Your task to perform on an android device: turn on javascript in the chrome app Image 0: 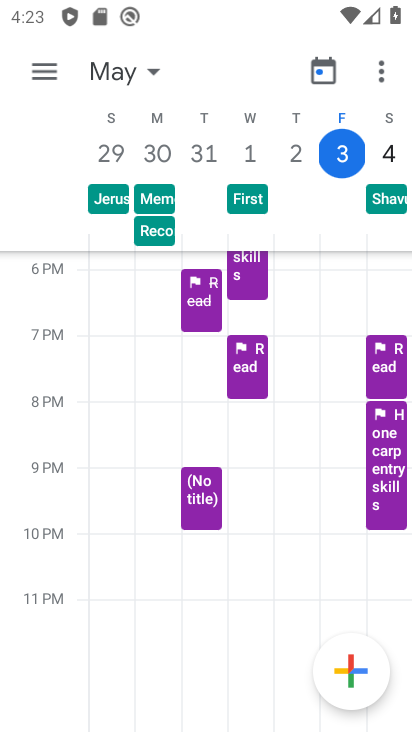
Step 0: press back button
Your task to perform on an android device: turn on javascript in the chrome app Image 1: 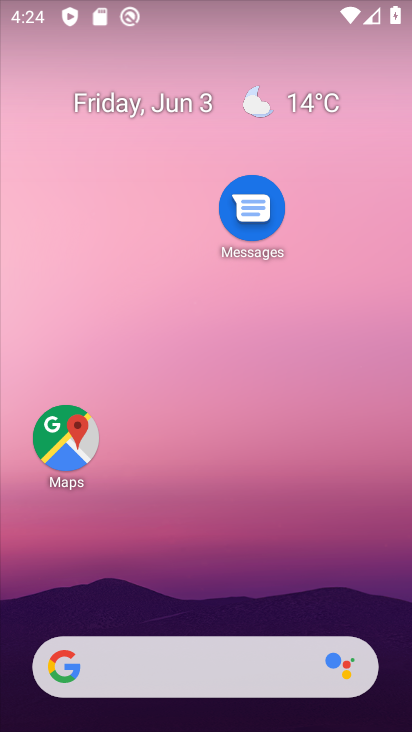
Step 1: drag from (219, 592) to (237, 156)
Your task to perform on an android device: turn on javascript in the chrome app Image 2: 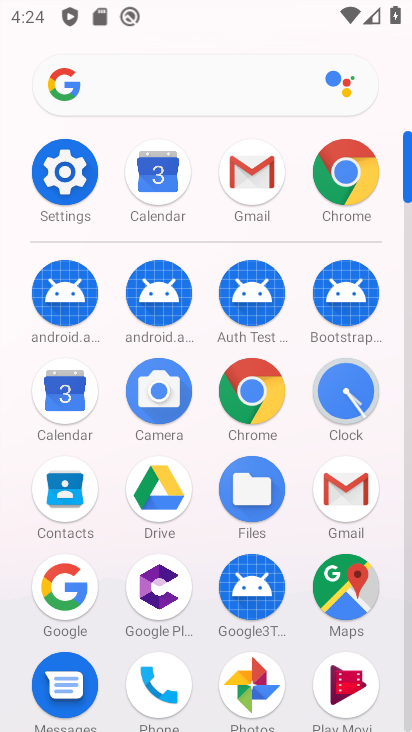
Step 2: click (336, 170)
Your task to perform on an android device: turn on javascript in the chrome app Image 3: 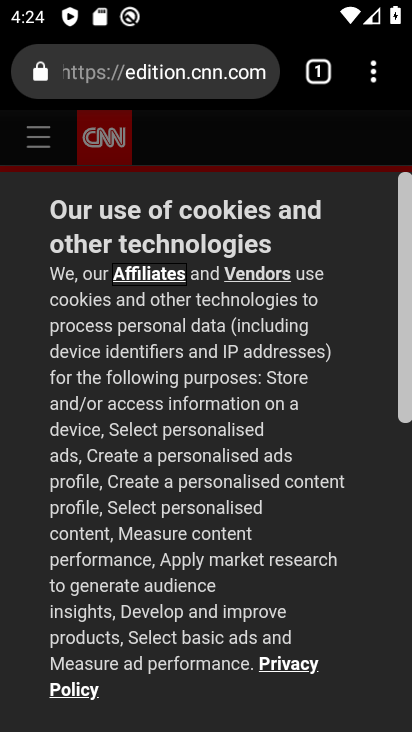
Step 3: click (377, 79)
Your task to perform on an android device: turn on javascript in the chrome app Image 4: 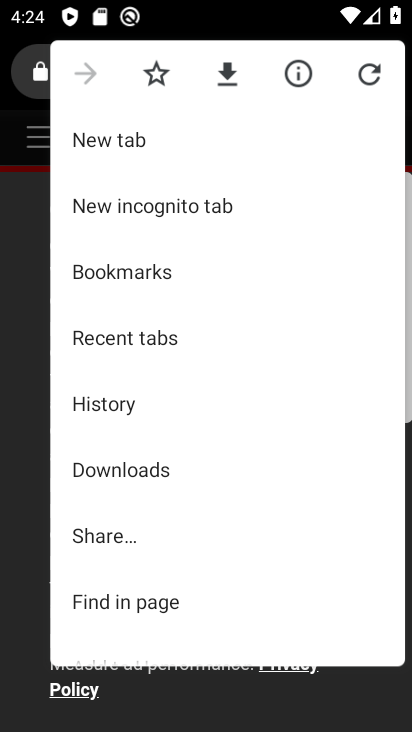
Step 4: drag from (183, 532) to (201, 293)
Your task to perform on an android device: turn on javascript in the chrome app Image 5: 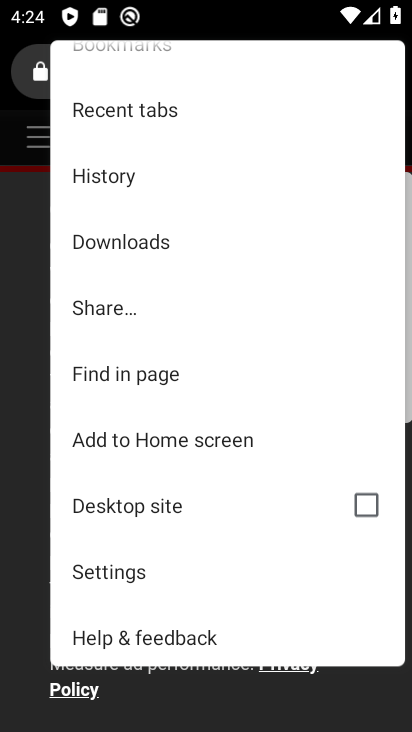
Step 5: click (131, 564)
Your task to perform on an android device: turn on javascript in the chrome app Image 6: 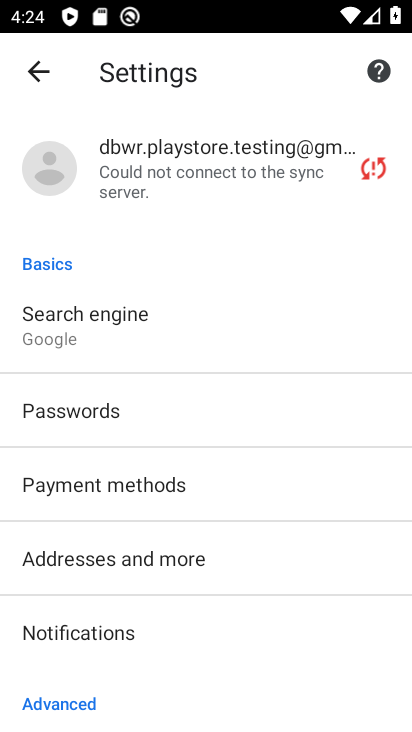
Step 6: drag from (207, 693) to (203, 386)
Your task to perform on an android device: turn on javascript in the chrome app Image 7: 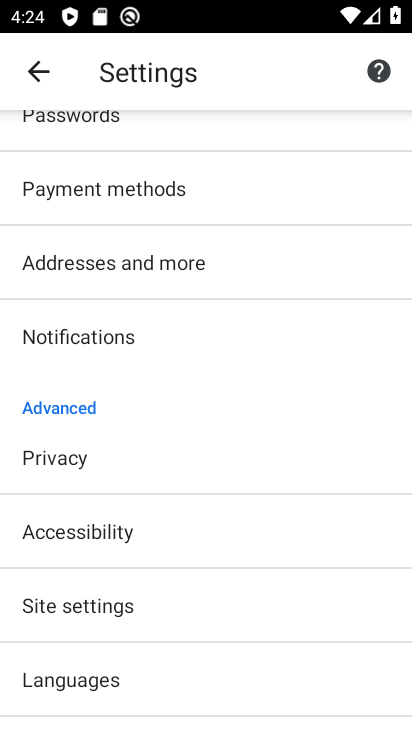
Step 7: drag from (154, 595) to (148, 357)
Your task to perform on an android device: turn on javascript in the chrome app Image 8: 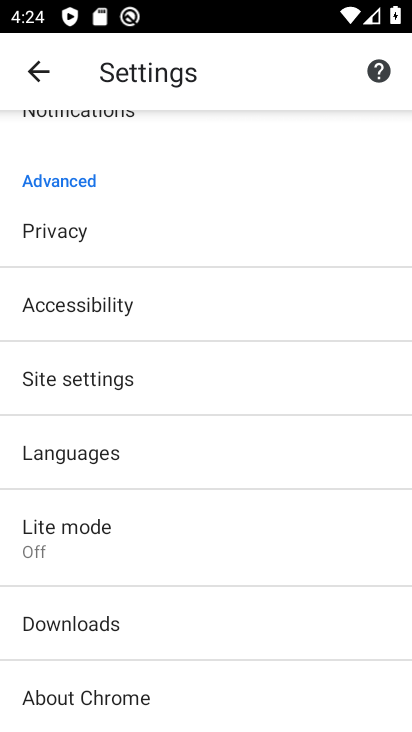
Step 8: drag from (134, 621) to (185, 393)
Your task to perform on an android device: turn on javascript in the chrome app Image 9: 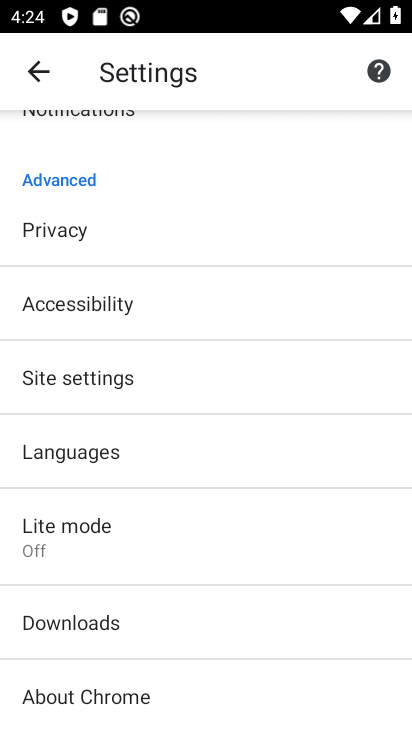
Step 9: click (102, 385)
Your task to perform on an android device: turn on javascript in the chrome app Image 10: 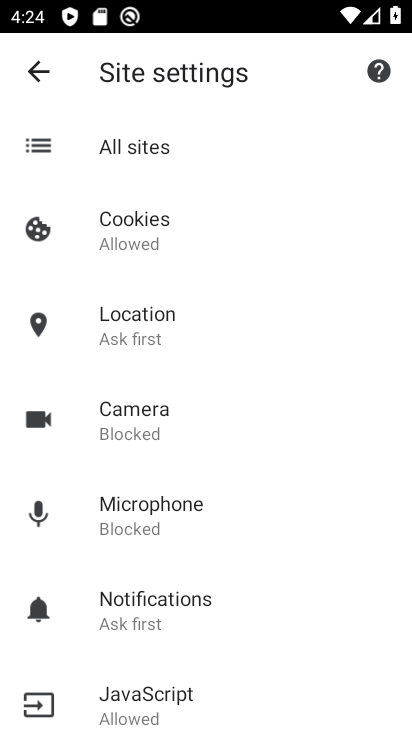
Step 10: drag from (166, 584) to (170, 343)
Your task to perform on an android device: turn on javascript in the chrome app Image 11: 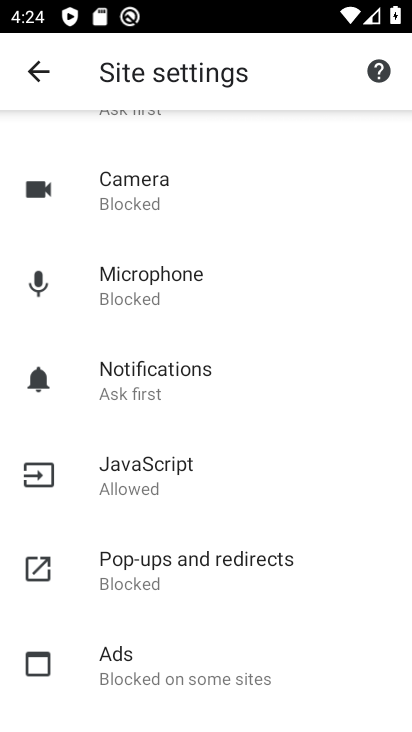
Step 11: click (156, 475)
Your task to perform on an android device: turn on javascript in the chrome app Image 12: 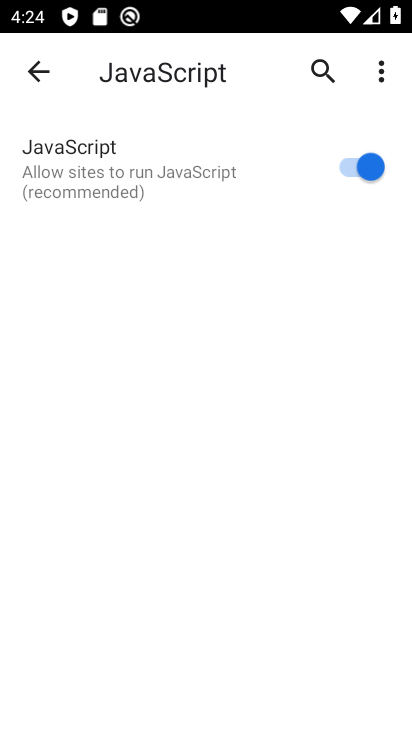
Step 12: task complete